Your task to perform on an android device: Open Yahoo.com Image 0: 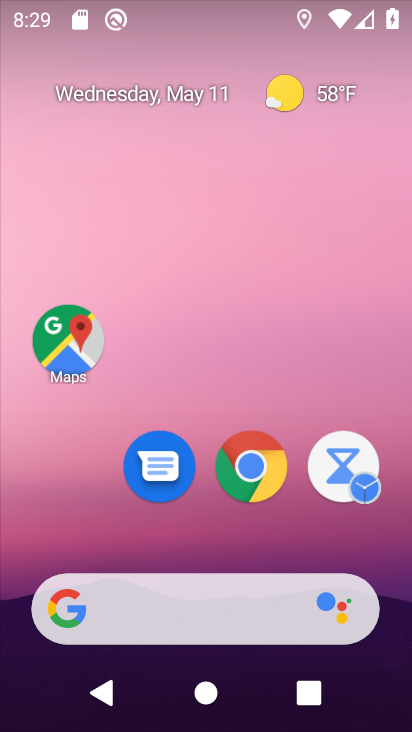
Step 0: click (248, 469)
Your task to perform on an android device: Open Yahoo.com Image 1: 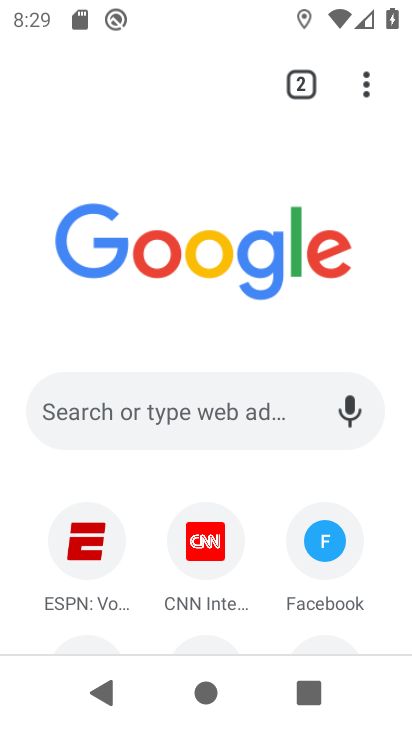
Step 1: drag from (241, 482) to (206, 289)
Your task to perform on an android device: Open Yahoo.com Image 2: 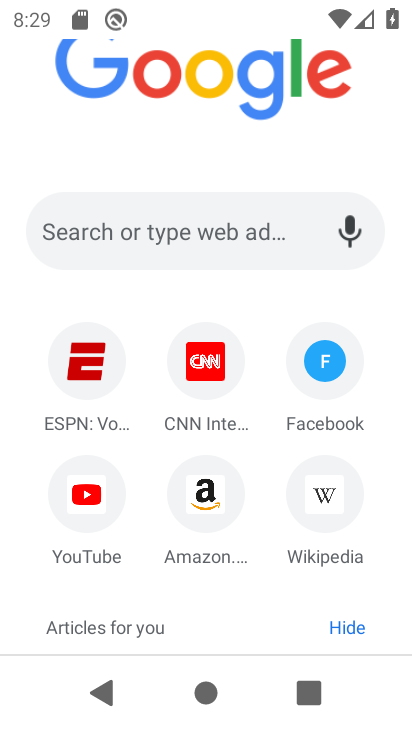
Step 2: click (155, 250)
Your task to perform on an android device: Open Yahoo.com Image 3: 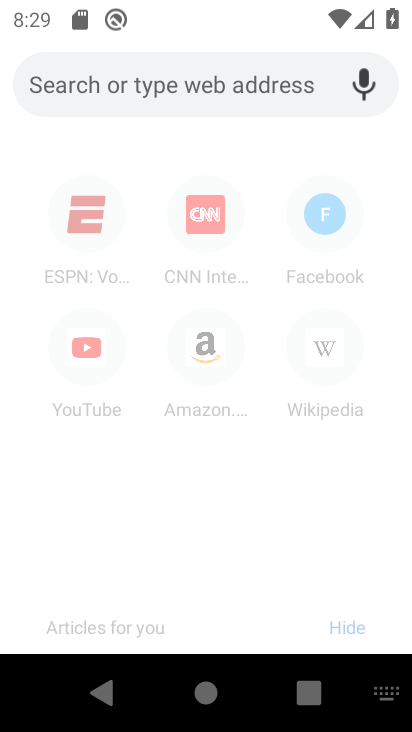
Step 3: type "yahoo.com"
Your task to perform on an android device: Open Yahoo.com Image 4: 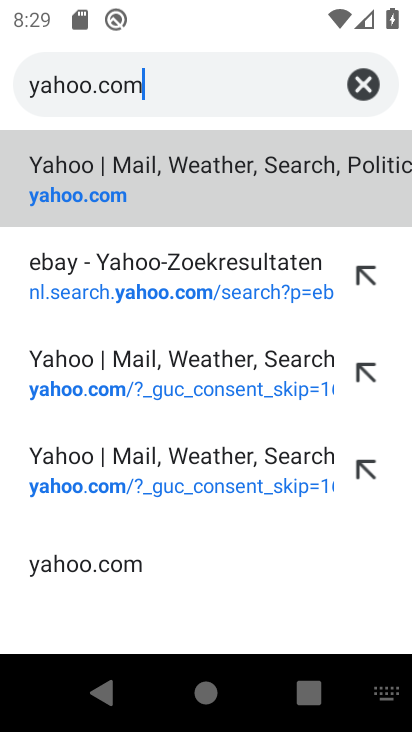
Step 4: click (51, 184)
Your task to perform on an android device: Open Yahoo.com Image 5: 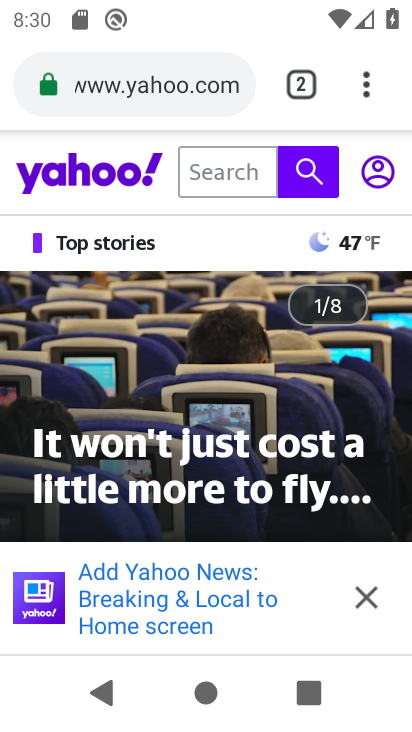
Step 5: task complete